Your task to perform on an android device: Go to display settings Image 0: 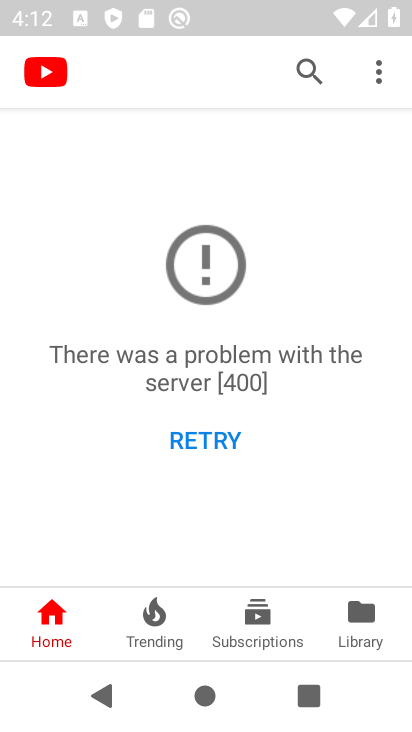
Step 0: press back button
Your task to perform on an android device: Go to display settings Image 1: 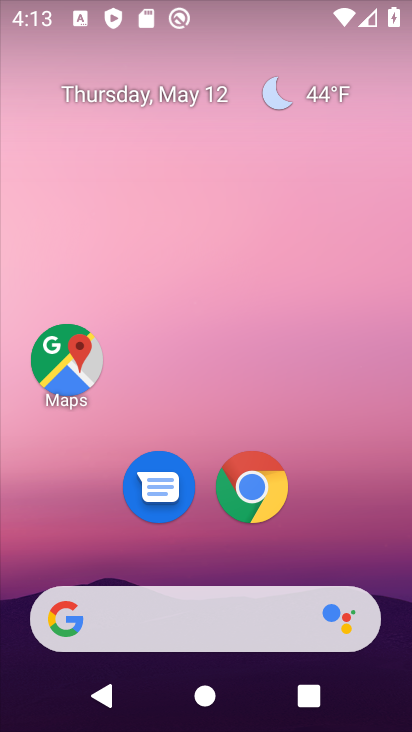
Step 1: drag from (316, 426) to (299, 104)
Your task to perform on an android device: Go to display settings Image 2: 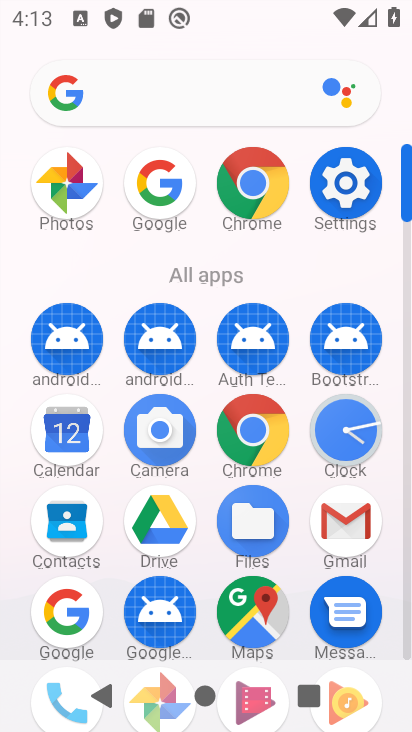
Step 2: click (358, 187)
Your task to perform on an android device: Go to display settings Image 3: 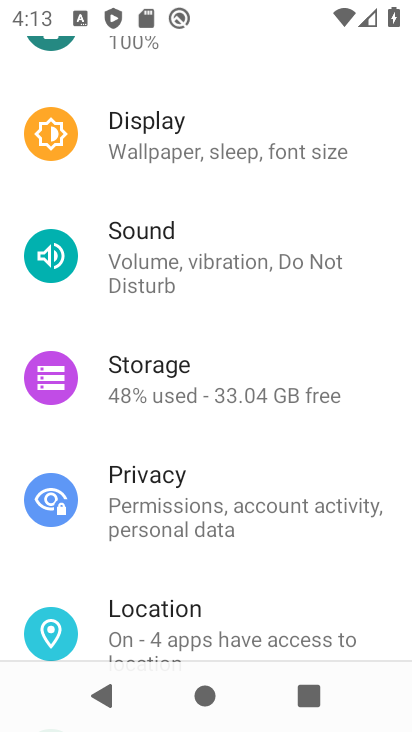
Step 3: click (218, 150)
Your task to perform on an android device: Go to display settings Image 4: 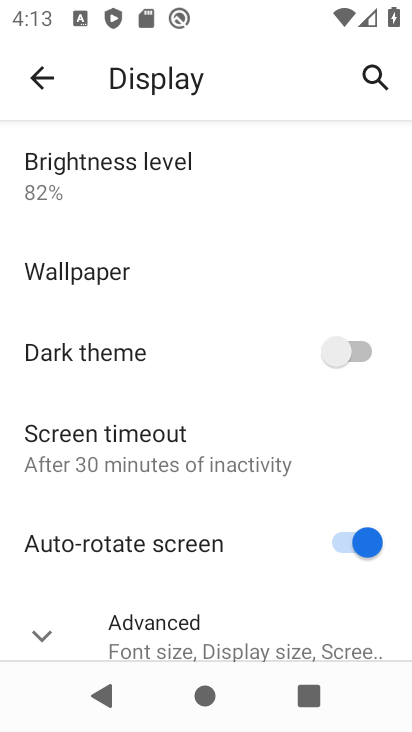
Step 4: task complete